Your task to perform on an android device: What is the news today? Image 0: 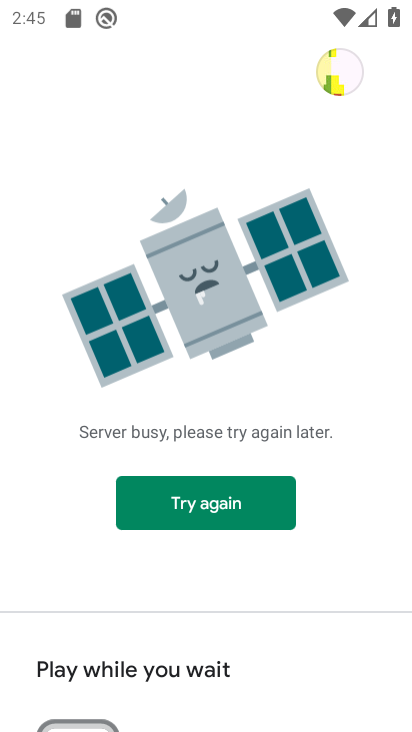
Step 0: press home button
Your task to perform on an android device: What is the news today? Image 1: 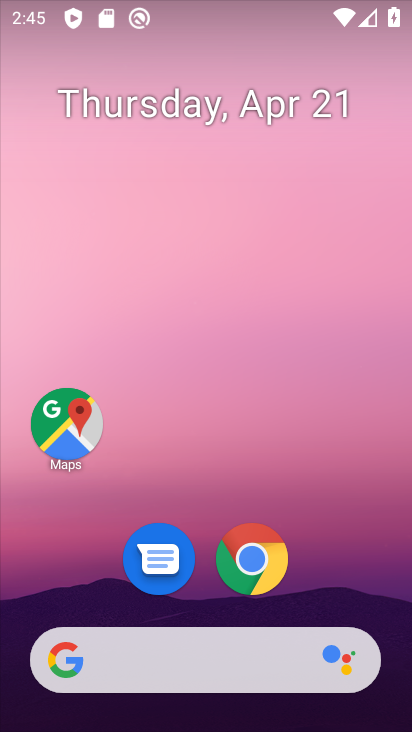
Step 1: task complete